Your task to perform on an android device: empty trash in google photos Image 0: 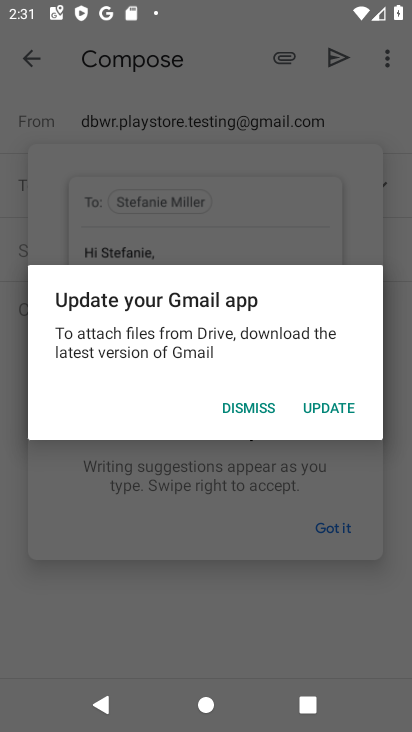
Step 0: press home button
Your task to perform on an android device: empty trash in google photos Image 1: 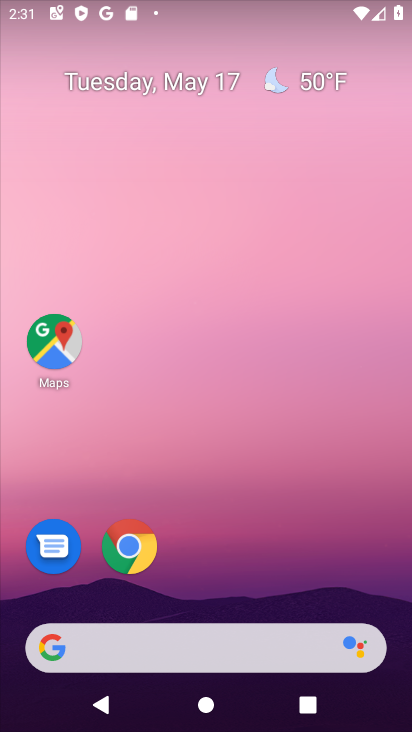
Step 1: click (266, 123)
Your task to perform on an android device: empty trash in google photos Image 2: 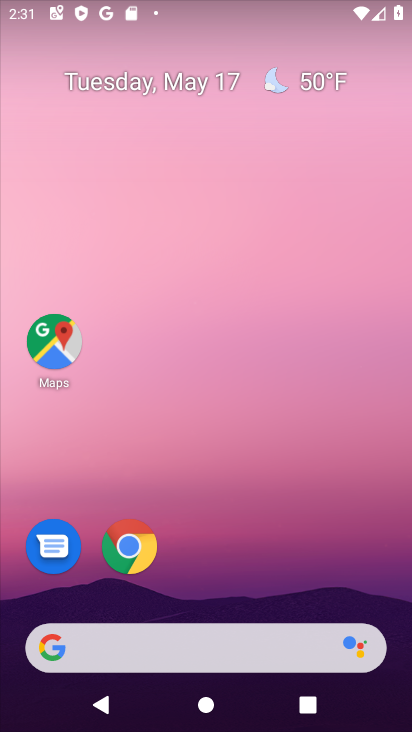
Step 2: drag from (233, 595) to (269, 25)
Your task to perform on an android device: empty trash in google photos Image 3: 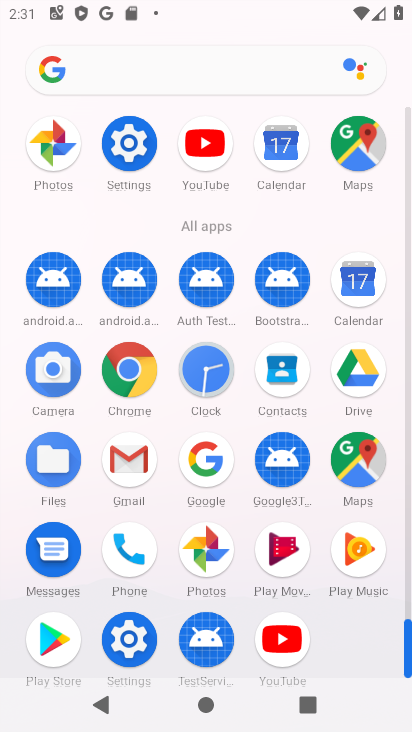
Step 3: click (209, 551)
Your task to perform on an android device: empty trash in google photos Image 4: 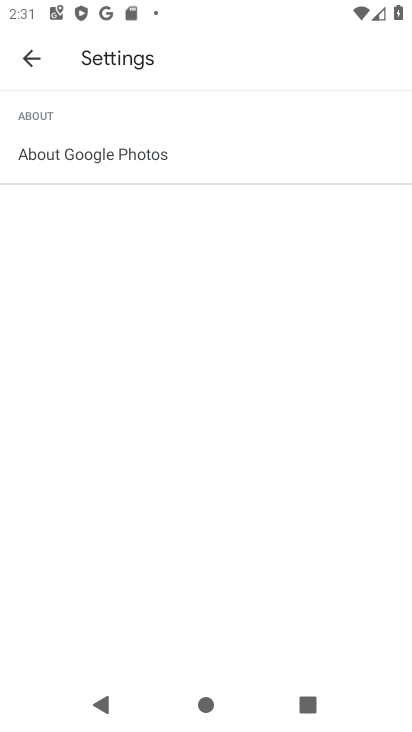
Step 4: click (23, 57)
Your task to perform on an android device: empty trash in google photos Image 5: 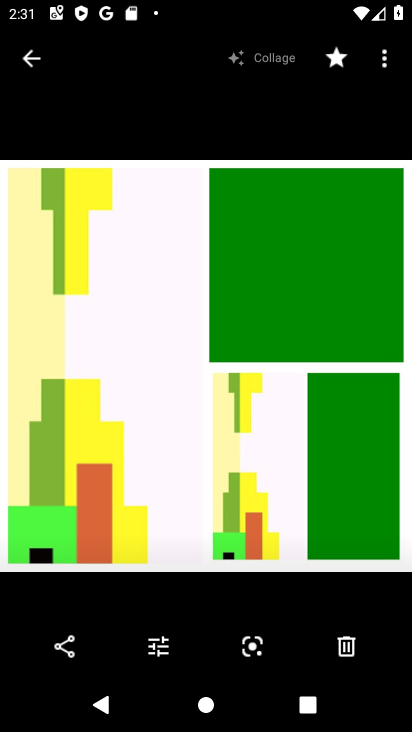
Step 5: press back button
Your task to perform on an android device: empty trash in google photos Image 6: 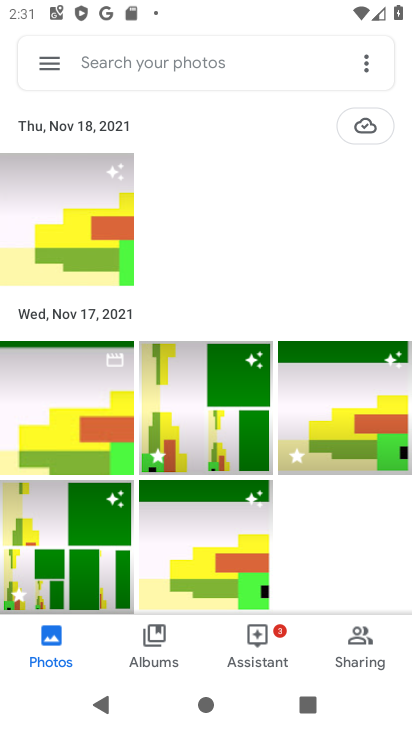
Step 6: click (42, 66)
Your task to perform on an android device: empty trash in google photos Image 7: 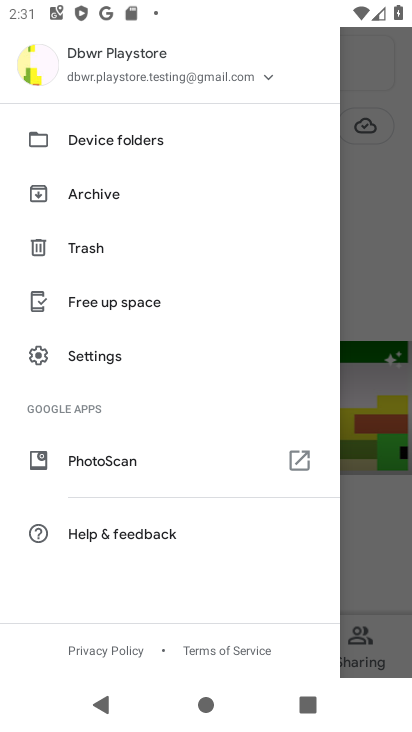
Step 7: click (90, 247)
Your task to perform on an android device: empty trash in google photos Image 8: 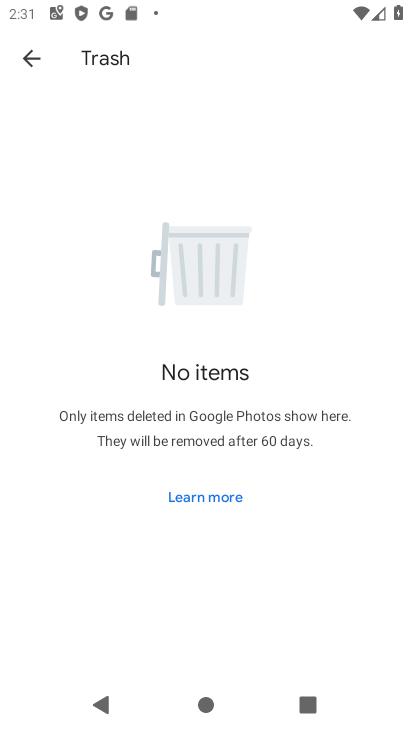
Step 8: task complete